Your task to perform on an android device: Search for a runner rug on Crate & Barrel Image 0: 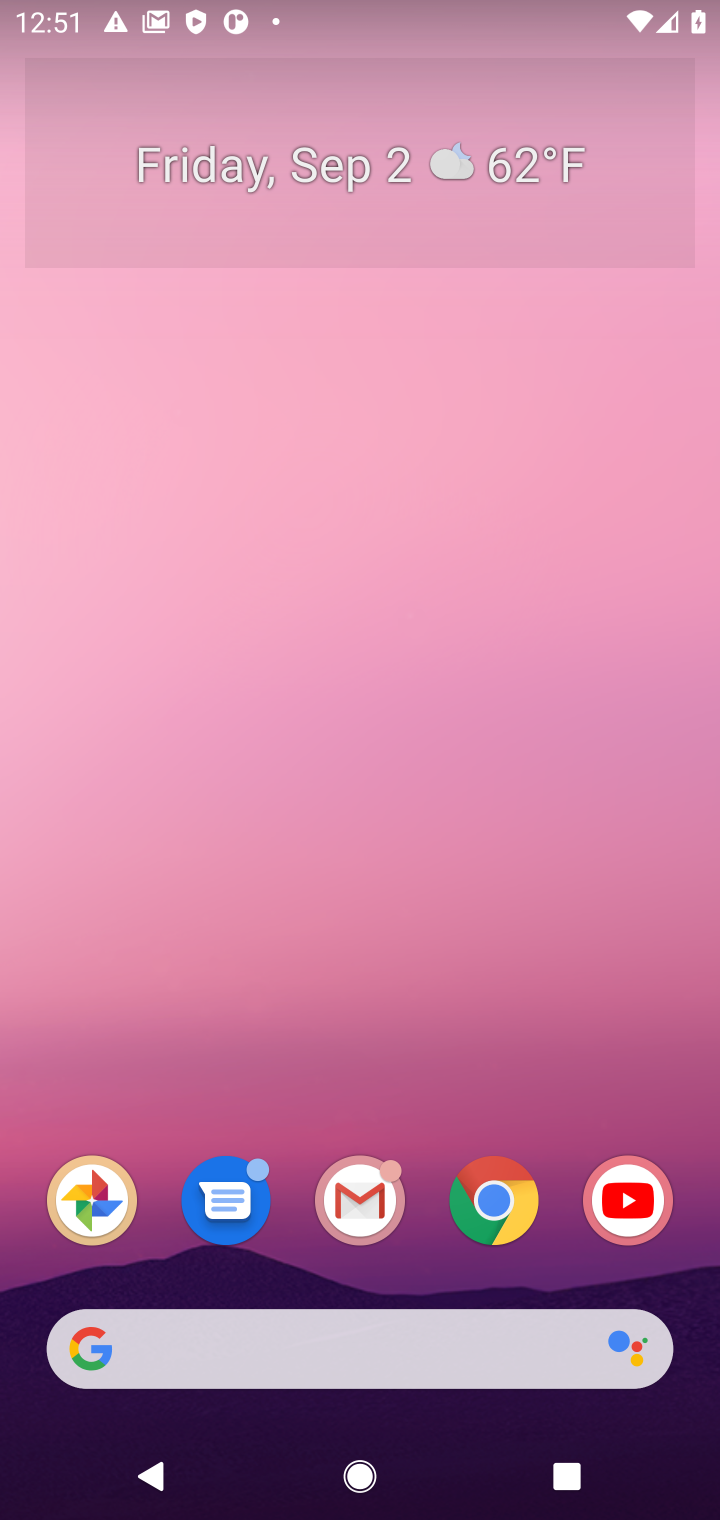
Step 0: click (514, 1192)
Your task to perform on an android device: Search for a runner rug on Crate & Barrel Image 1: 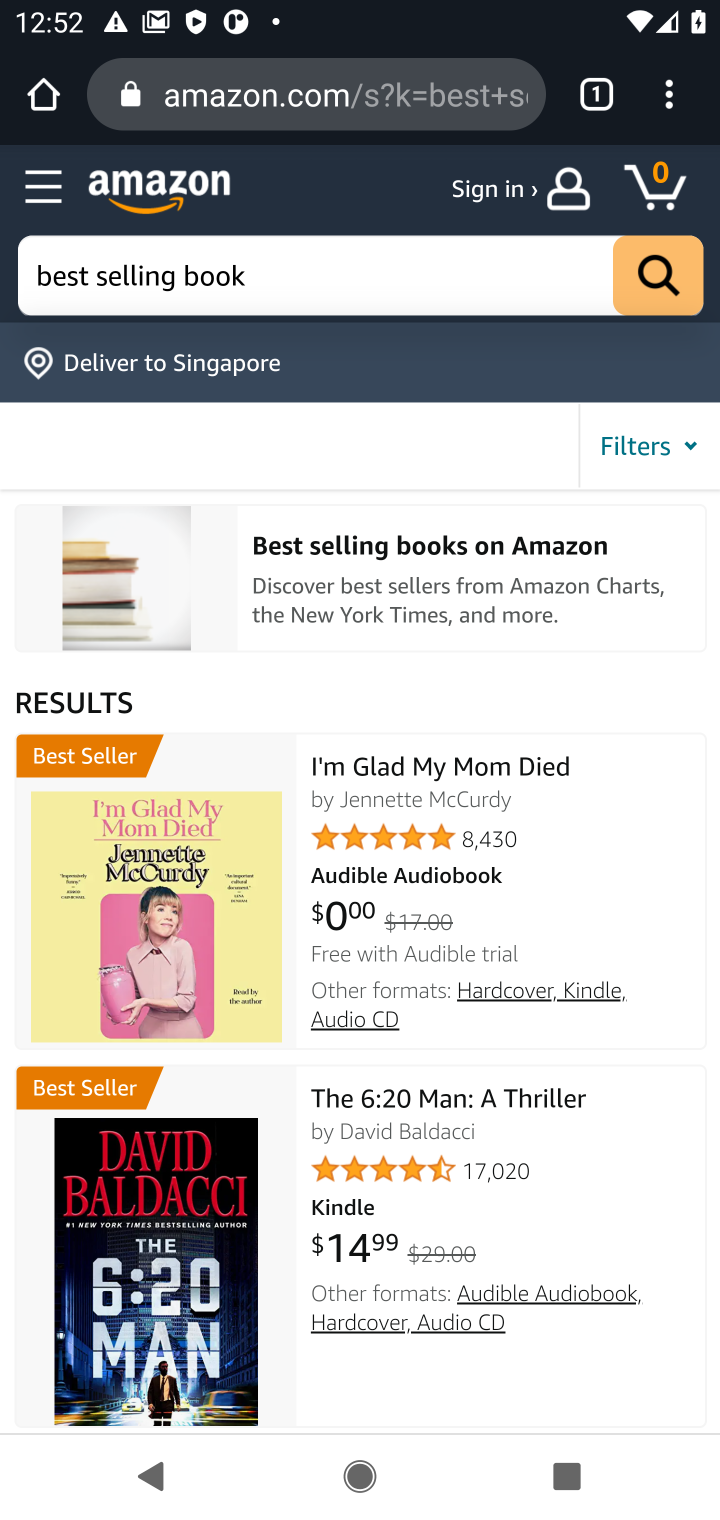
Step 1: click (378, 90)
Your task to perform on an android device: Search for a runner rug on Crate & Barrel Image 2: 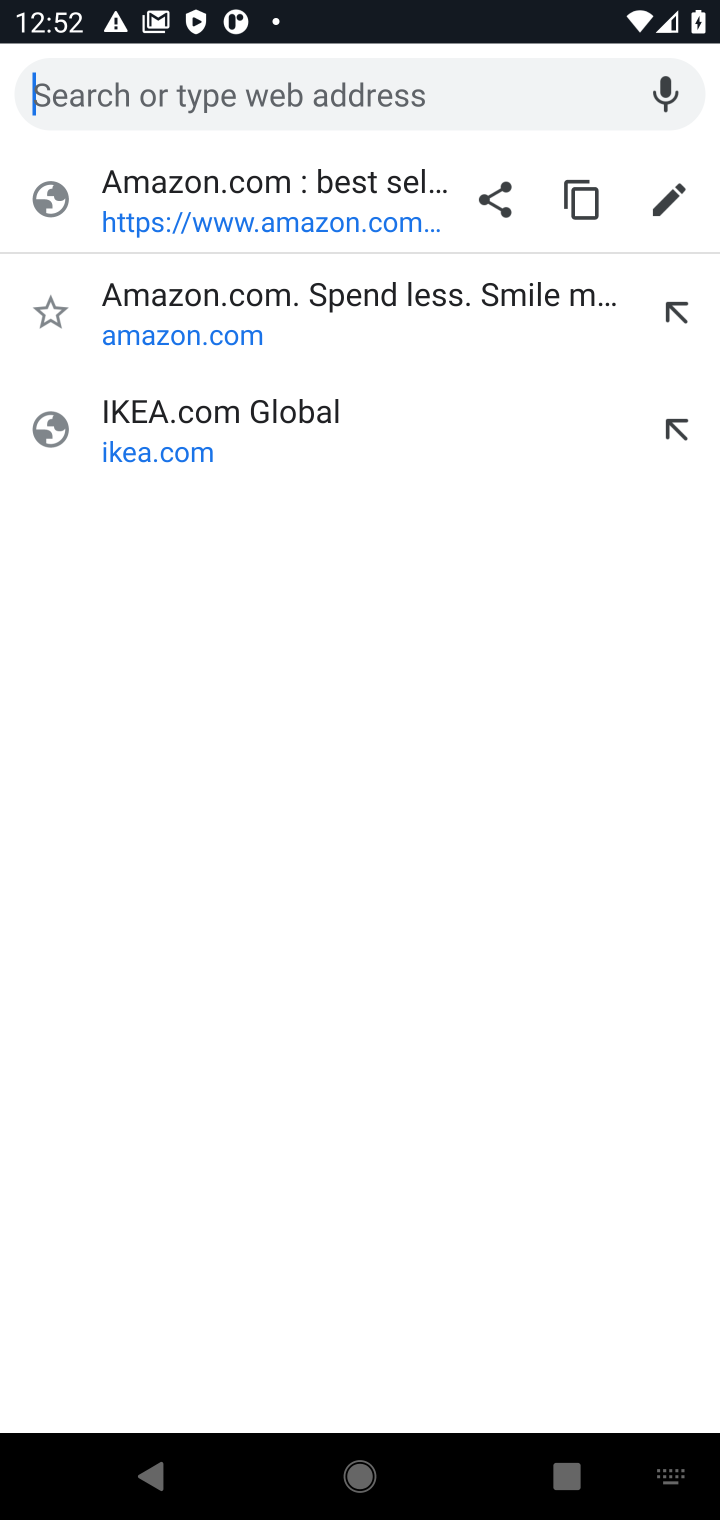
Step 2: type " Crate & Barrel"
Your task to perform on an android device: Search for a runner rug on Crate & Barrel Image 3: 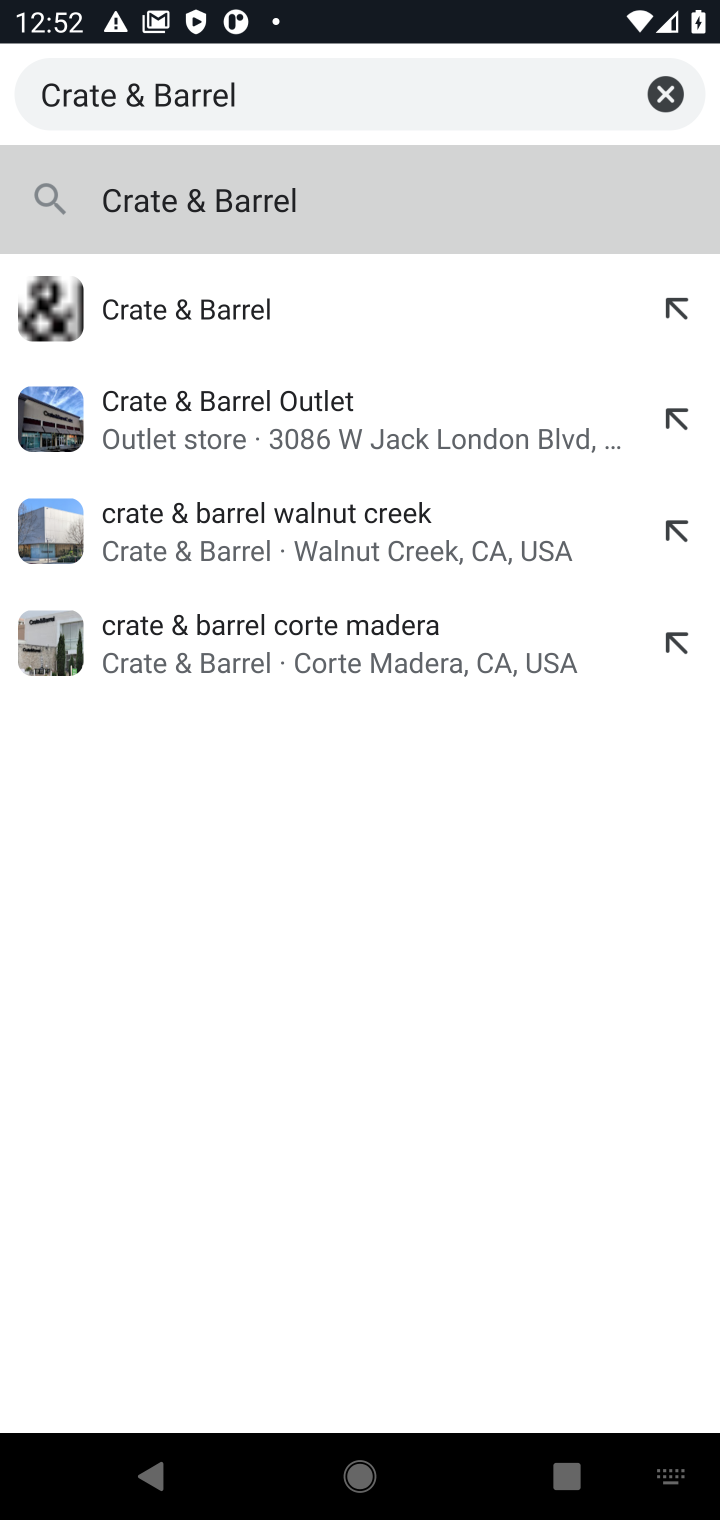
Step 3: press enter
Your task to perform on an android device: Search for a runner rug on Crate & Barrel Image 4: 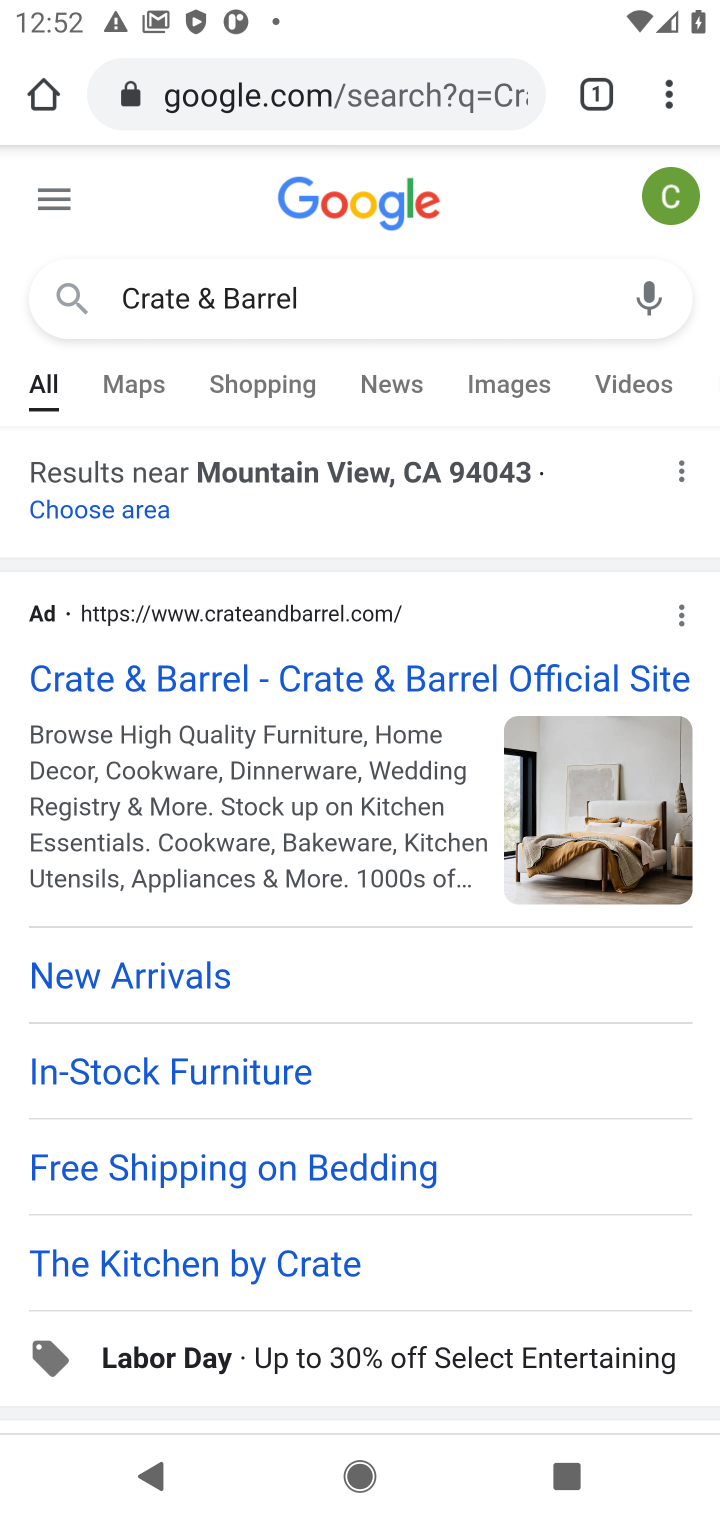
Step 4: drag from (379, 1116) to (619, 296)
Your task to perform on an android device: Search for a runner rug on Crate & Barrel Image 5: 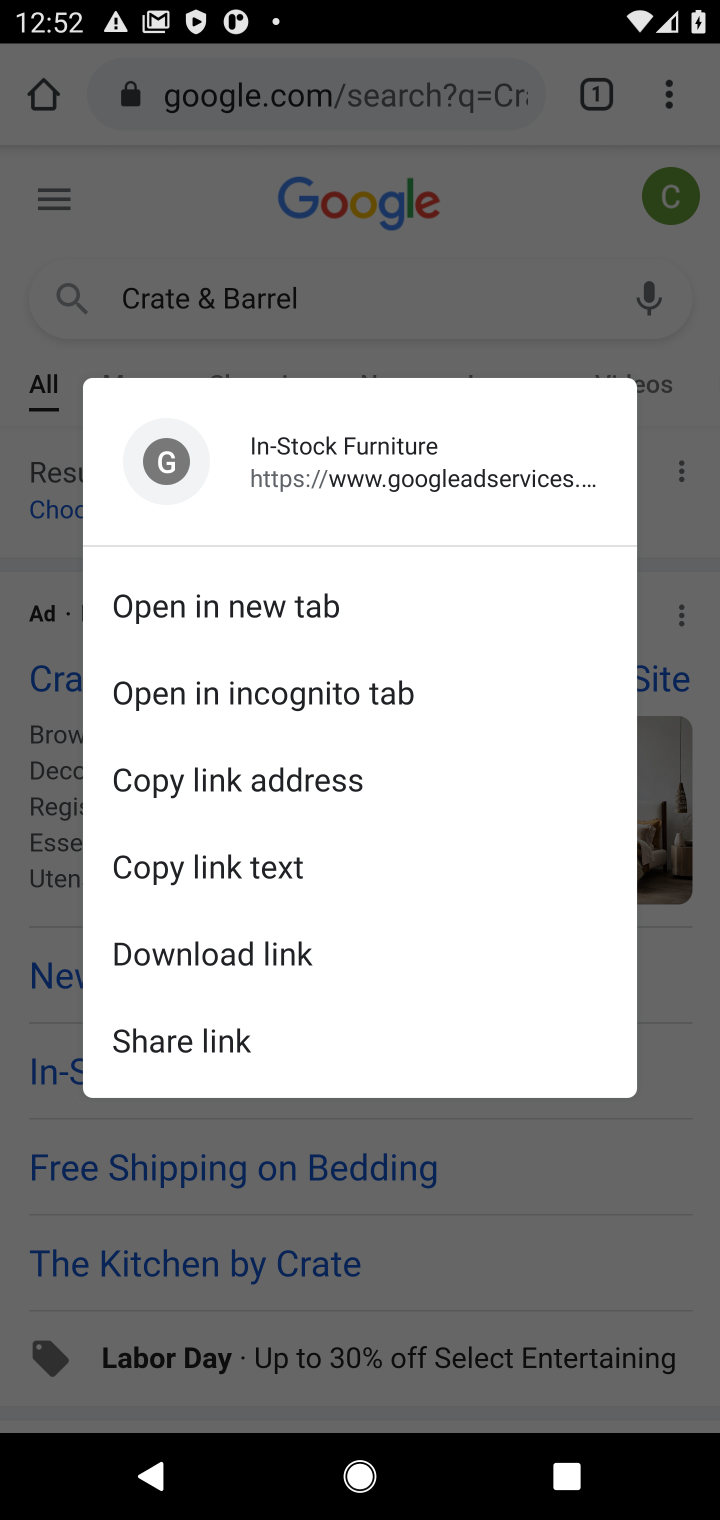
Step 5: click (679, 1198)
Your task to perform on an android device: Search for a runner rug on Crate & Barrel Image 6: 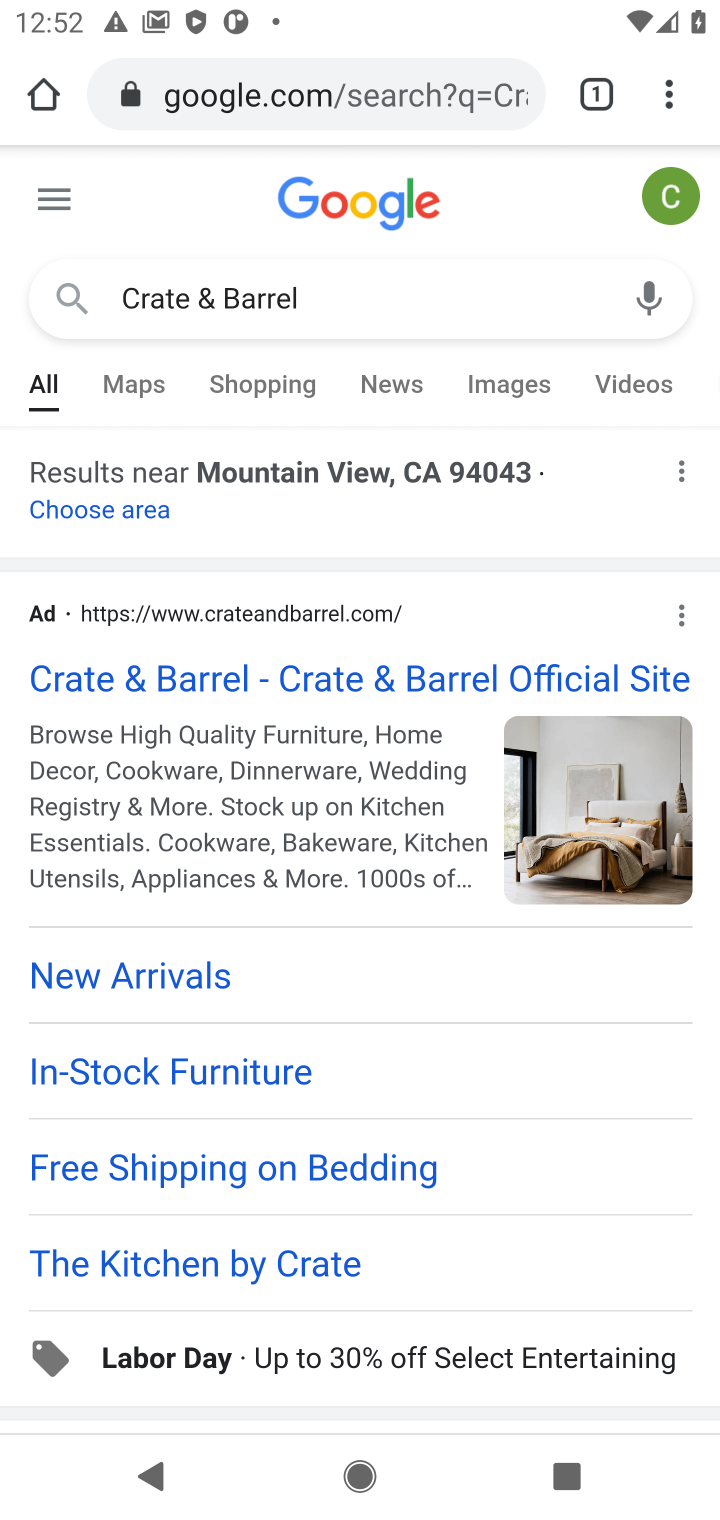
Step 6: drag from (177, 1197) to (471, 356)
Your task to perform on an android device: Search for a runner rug on Crate & Barrel Image 7: 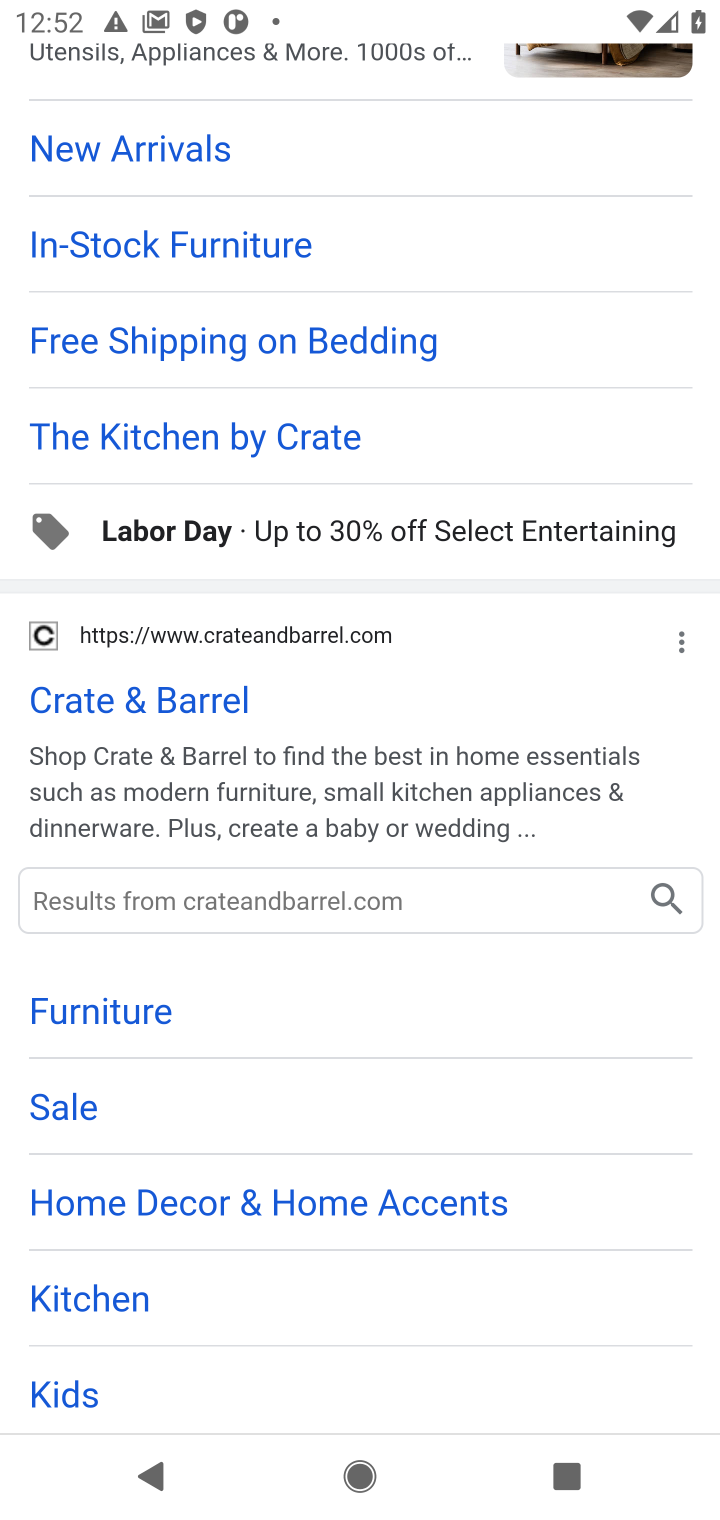
Step 7: click (184, 713)
Your task to perform on an android device: Search for a runner rug on Crate & Barrel Image 8: 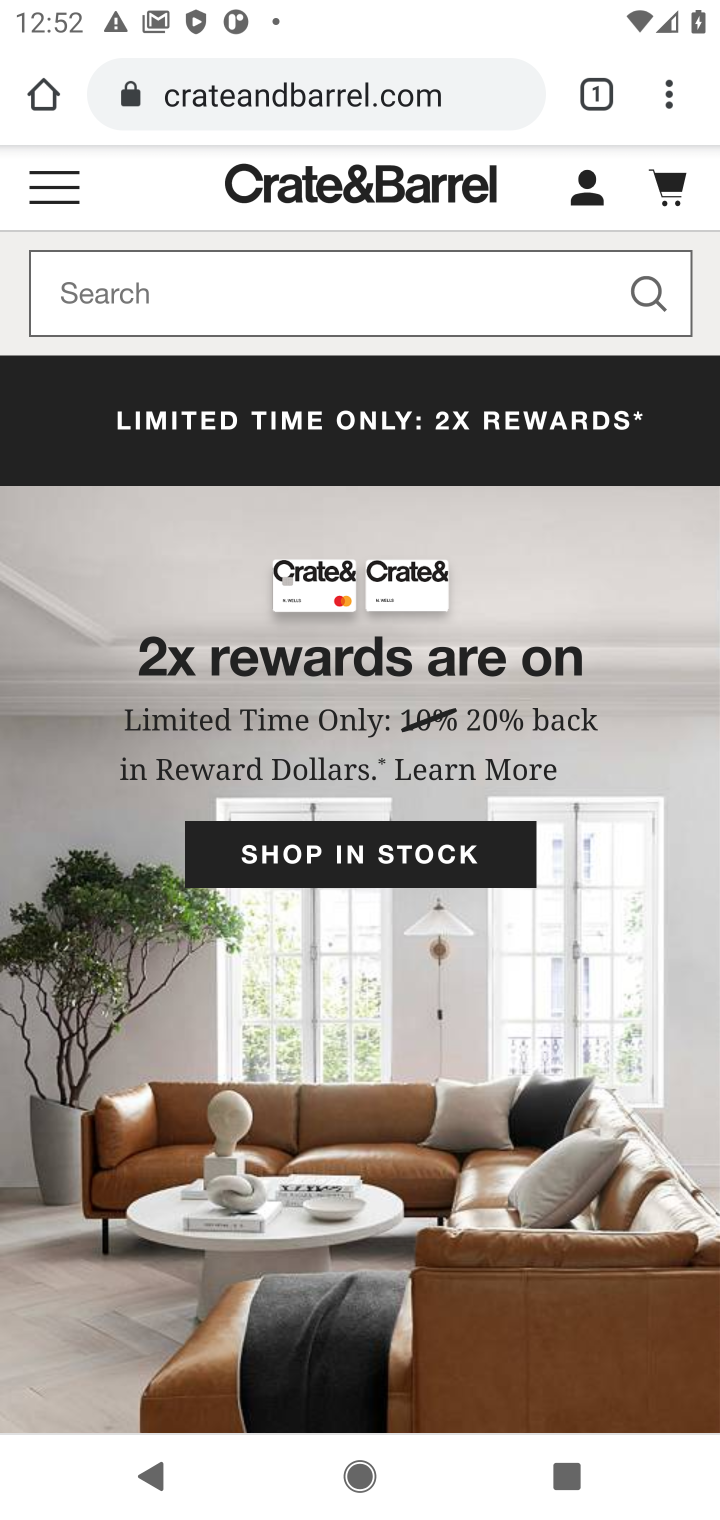
Step 8: click (299, 282)
Your task to perform on an android device: Search for a runner rug on Crate & Barrel Image 9: 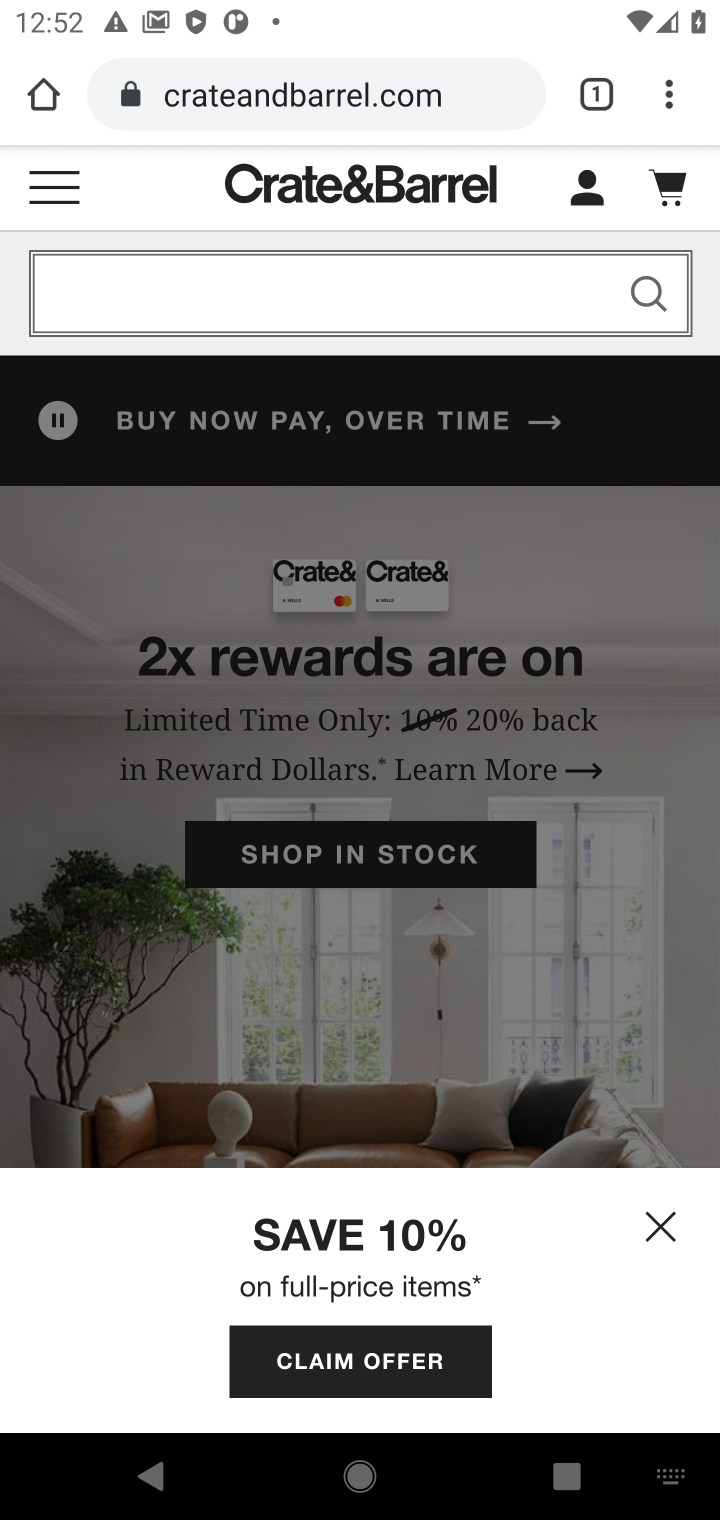
Step 9: press enter
Your task to perform on an android device: Search for a runner rug on Crate & Barrel Image 10: 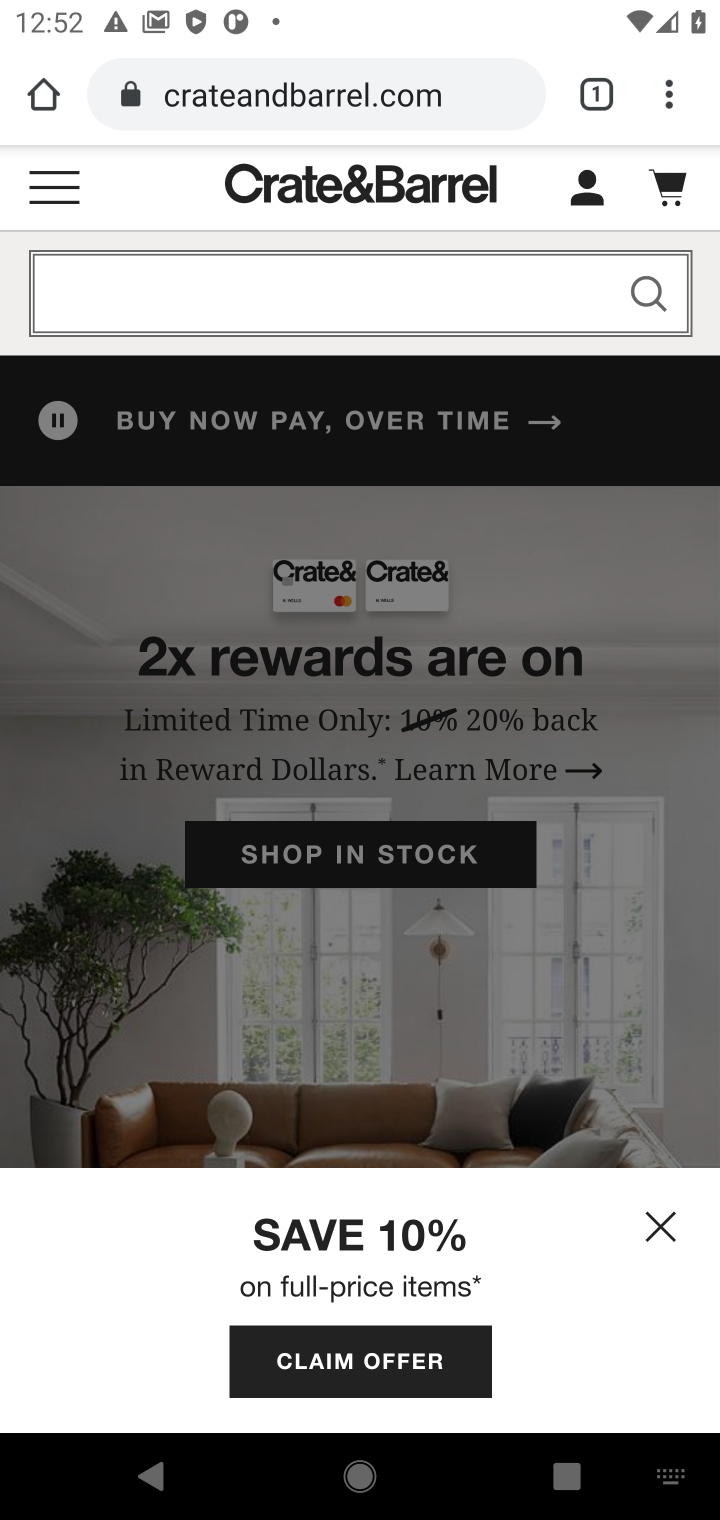
Step 10: type "runner rug"
Your task to perform on an android device: Search for a runner rug on Crate & Barrel Image 11: 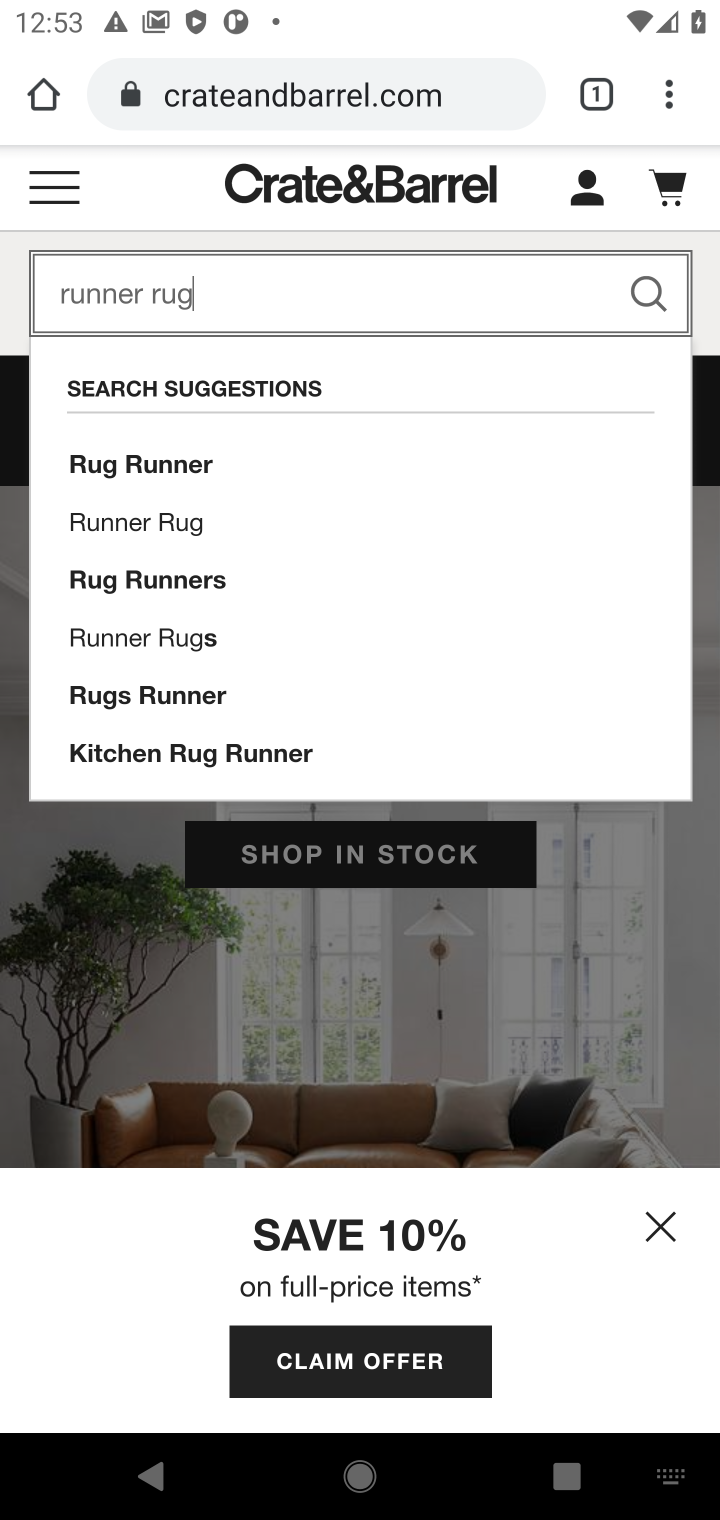
Step 11: click (636, 290)
Your task to perform on an android device: Search for a runner rug on Crate & Barrel Image 12: 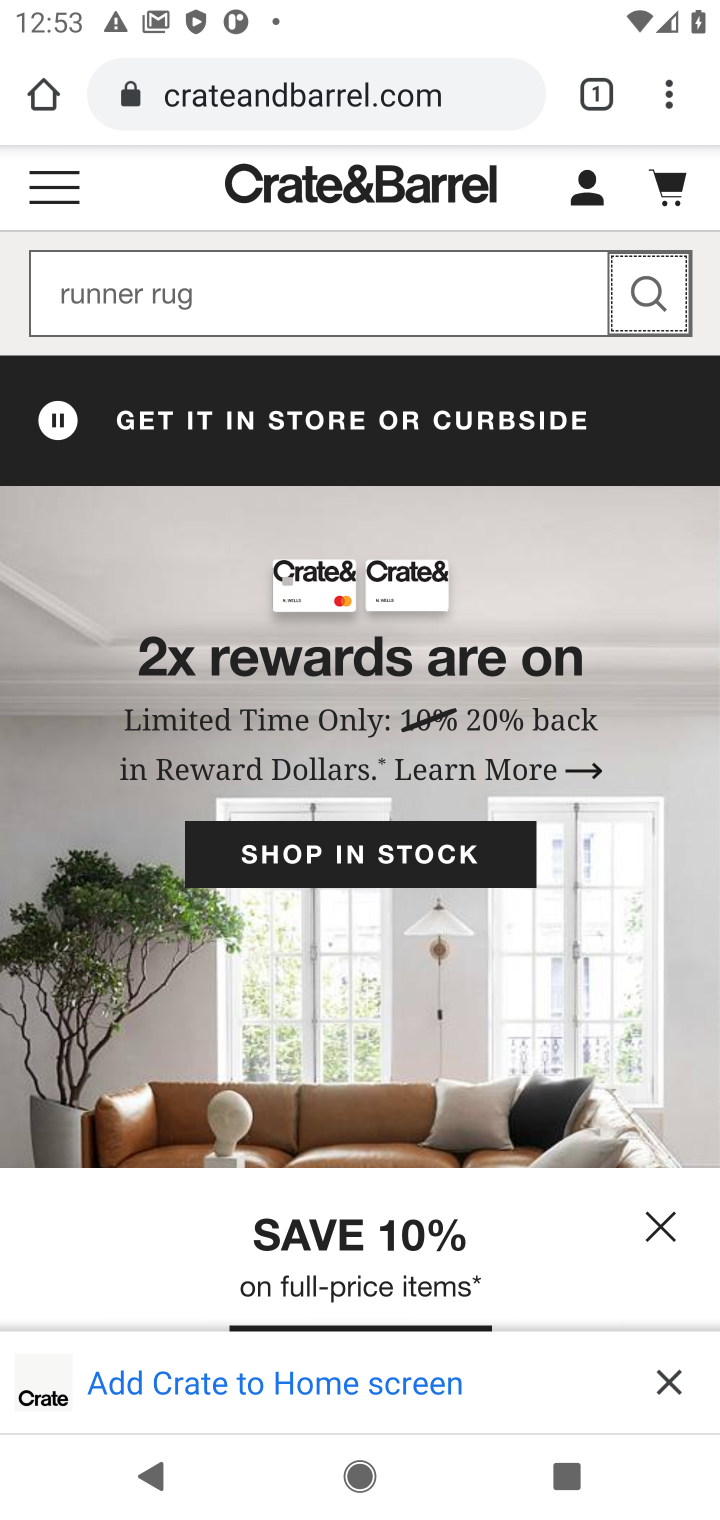
Step 12: click (652, 297)
Your task to perform on an android device: Search for a runner rug on Crate & Barrel Image 13: 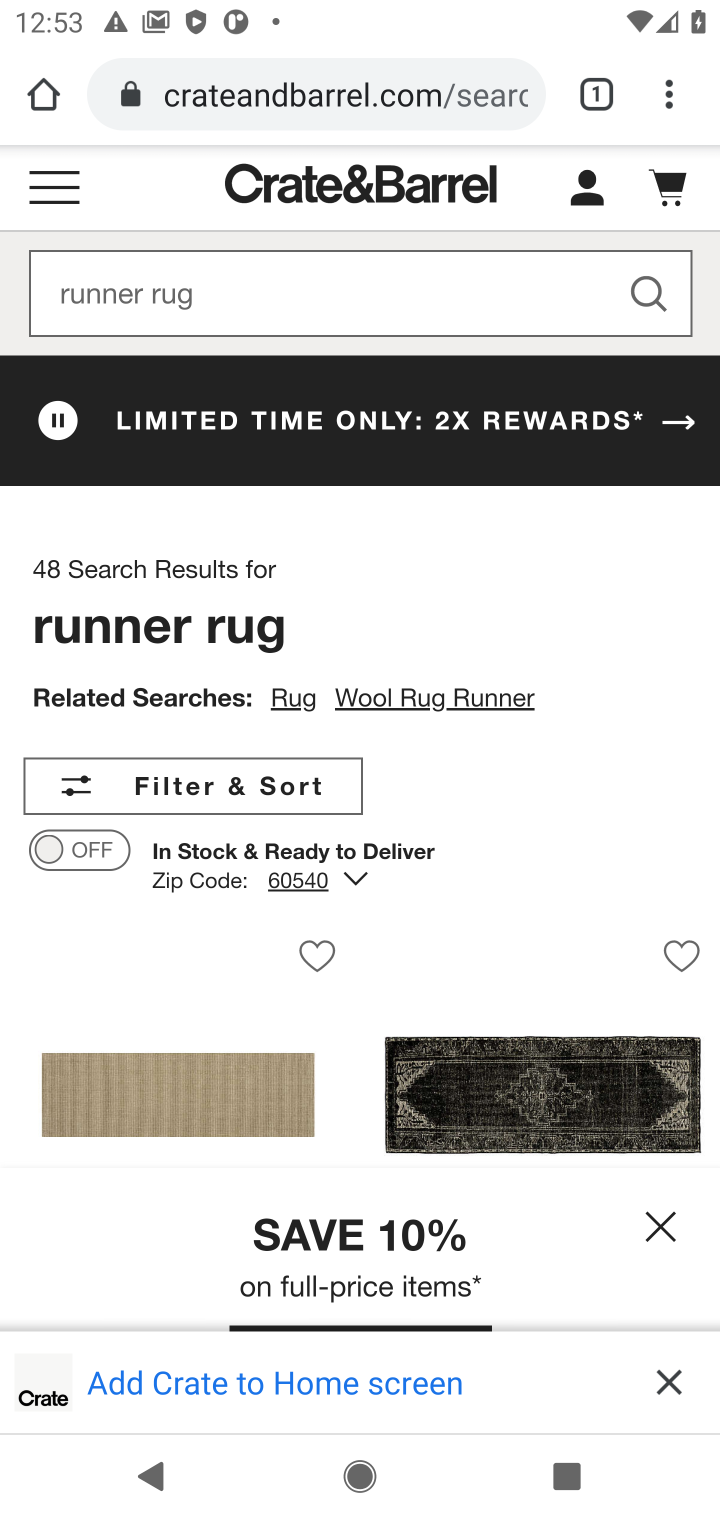
Step 13: click (656, 1216)
Your task to perform on an android device: Search for a runner rug on Crate & Barrel Image 14: 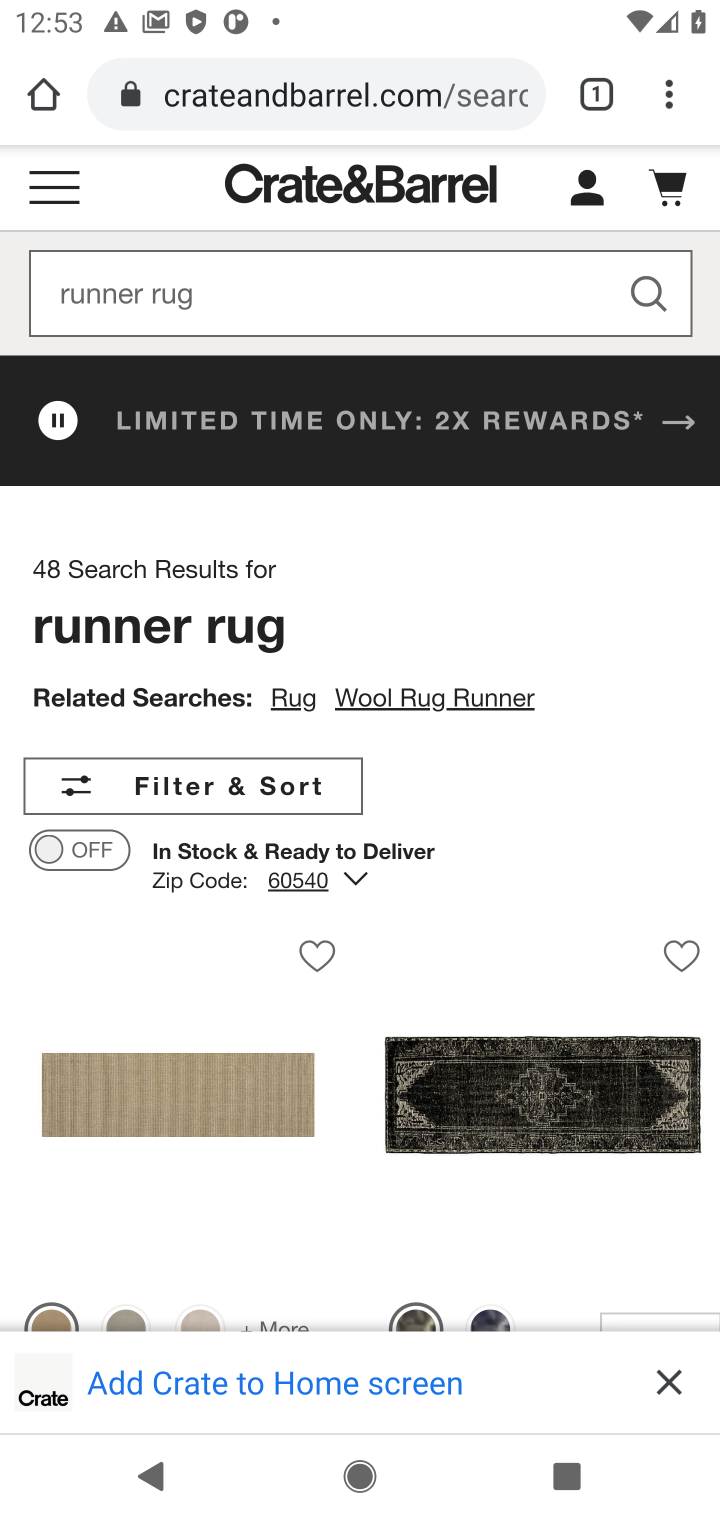
Step 14: task complete